Your task to perform on an android device: See recent photos Image 0: 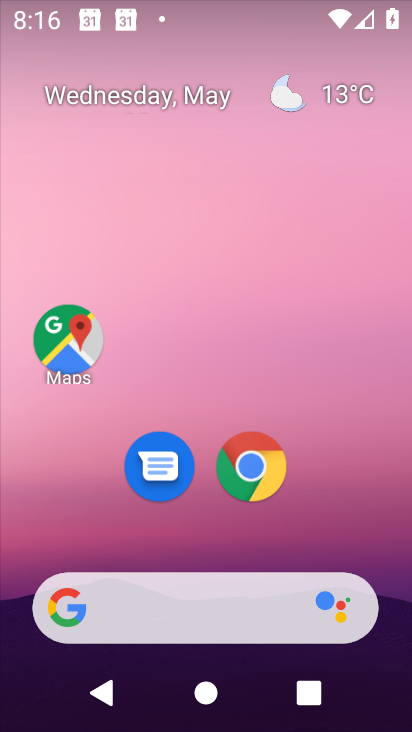
Step 0: drag from (208, 547) to (242, 44)
Your task to perform on an android device: See recent photos Image 1: 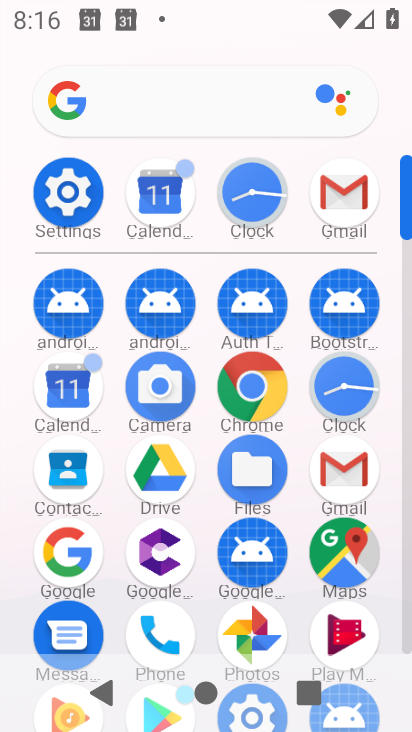
Step 1: click (245, 617)
Your task to perform on an android device: See recent photos Image 2: 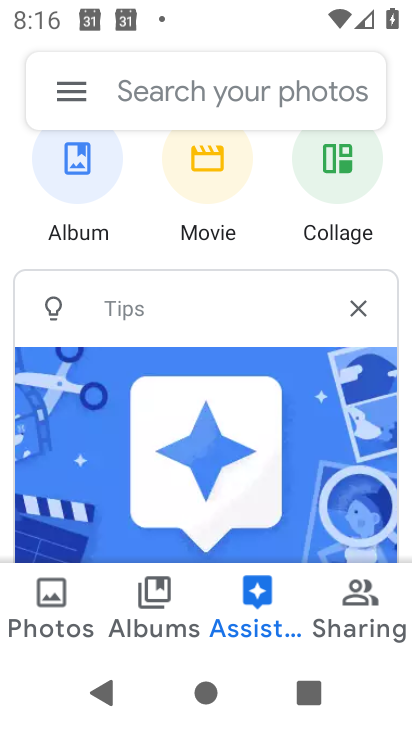
Step 2: click (48, 593)
Your task to perform on an android device: See recent photos Image 3: 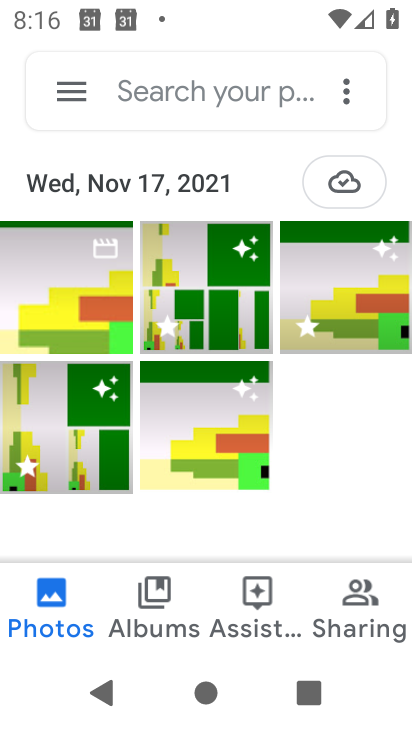
Step 3: task complete